Your task to perform on an android device: Open Google Chrome and open the bookmarks view Image 0: 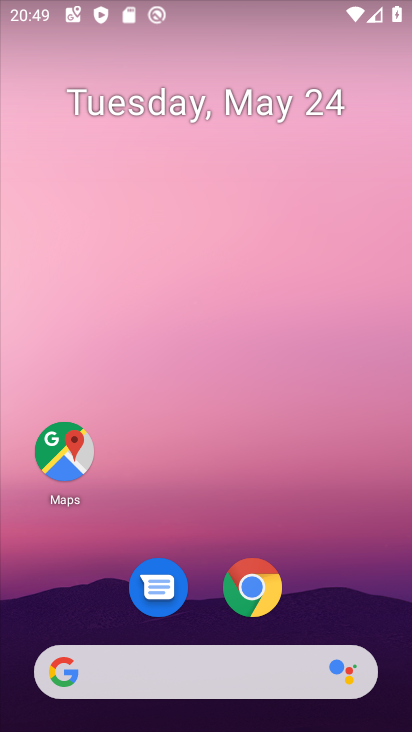
Step 0: drag from (339, 533) to (205, 6)
Your task to perform on an android device: Open Google Chrome and open the bookmarks view Image 1: 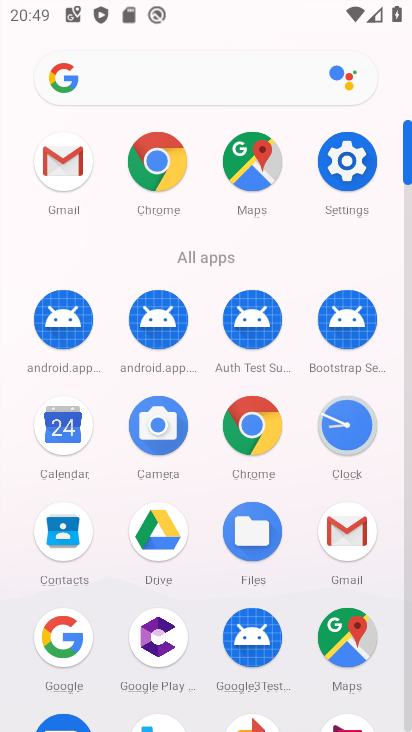
Step 1: drag from (0, 505) to (11, 284)
Your task to perform on an android device: Open Google Chrome and open the bookmarks view Image 2: 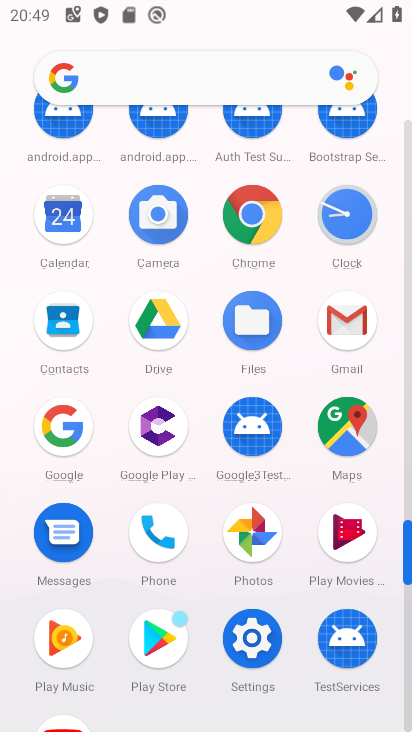
Step 2: click (247, 207)
Your task to perform on an android device: Open Google Chrome and open the bookmarks view Image 3: 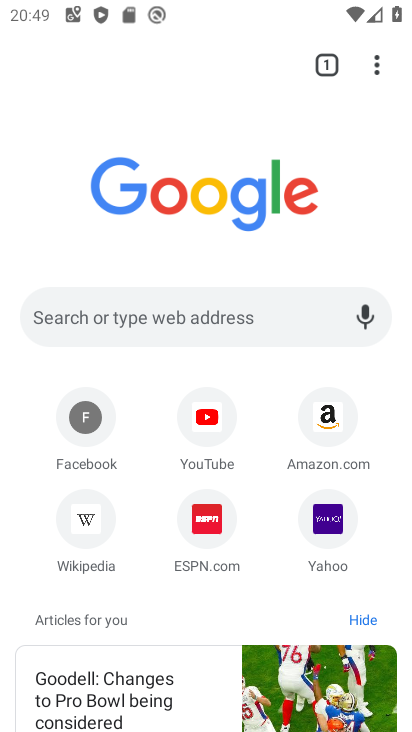
Step 3: task complete